Your task to perform on an android device: set default search engine in the chrome app Image 0: 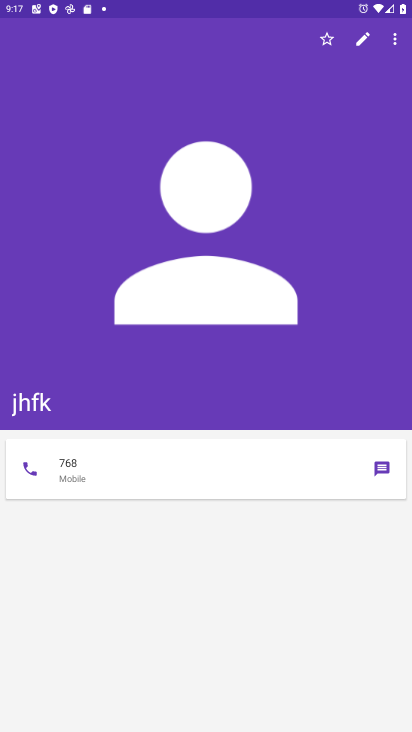
Step 0: press home button
Your task to perform on an android device: set default search engine in the chrome app Image 1: 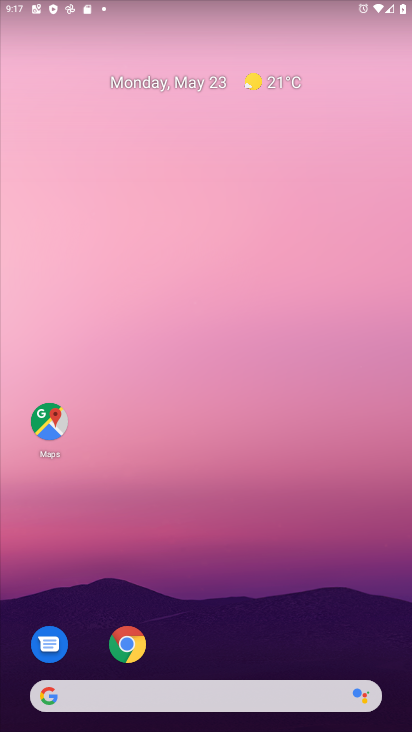
Step 1: click (141, 643)
Your task to perform on an android device: set default search engine in the chrome app Image 2: 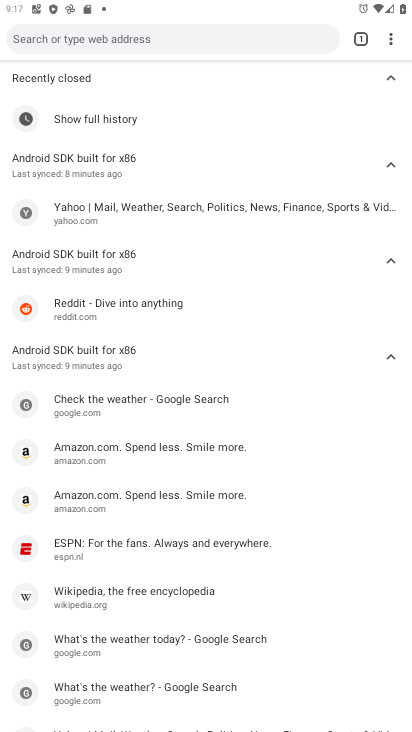
Step 2: click (391, 37)
Your task to perform on an android device: set default search engine in the chrome app Image 3: 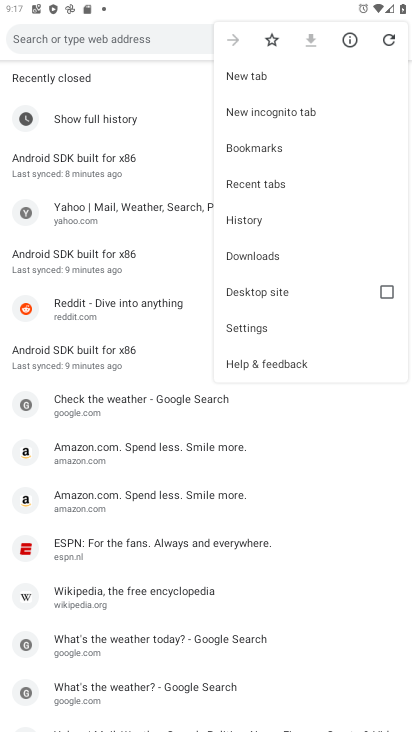
Step 3: click (276, 322)
Your task to perform on an android device: set default search engine in the chrome app Image 4: 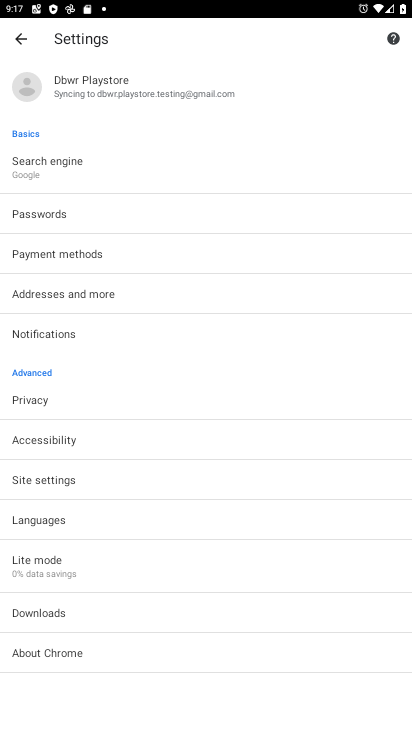
Step 4: click (101, 163)
Your task to perform on an android device: set default search engine in the chrome app Image 5: 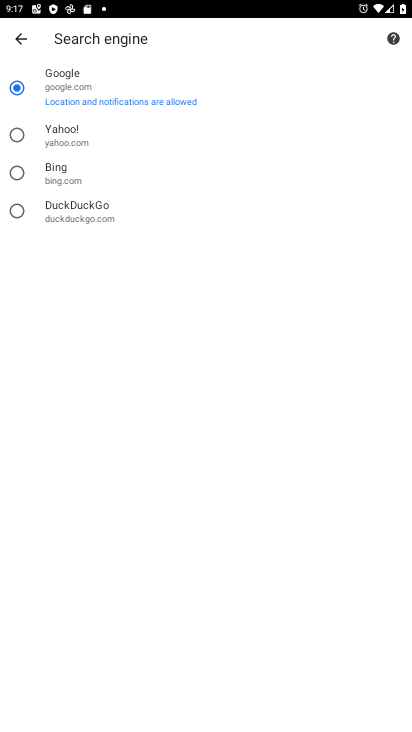
Step 5: task complete